Your task to perform on an android device: Go to Yahoo.com Image 0: 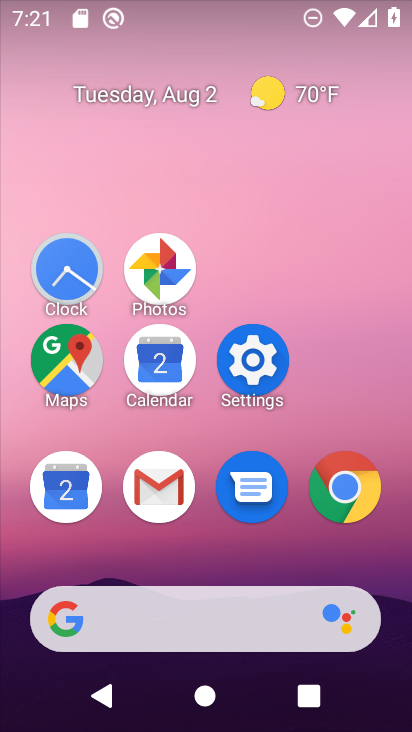
Step 0: click (348, 486)
Your task to perform on an android device: Go to Yahoo.com Image 1: 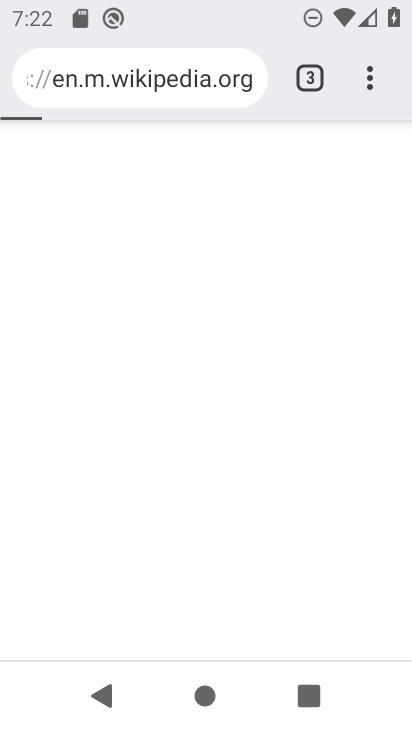
Step 1: click (334, 167)
Your task to perform on an android device: Go to Yahoo.com Image 2: 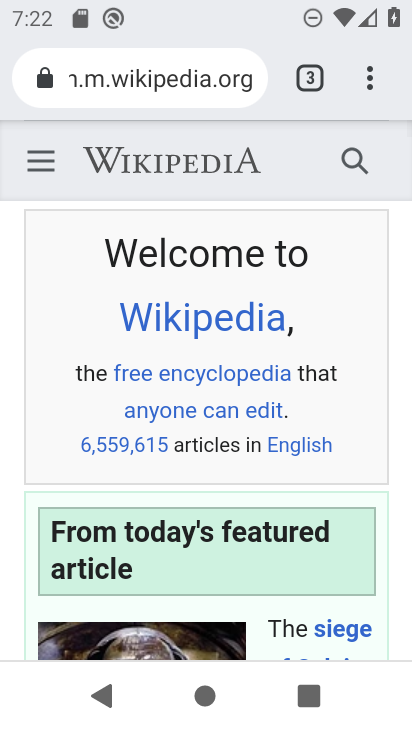
Step 2: click (371, 69)
Your task to perform on an android device: Go to Yahoo.com Image 3: 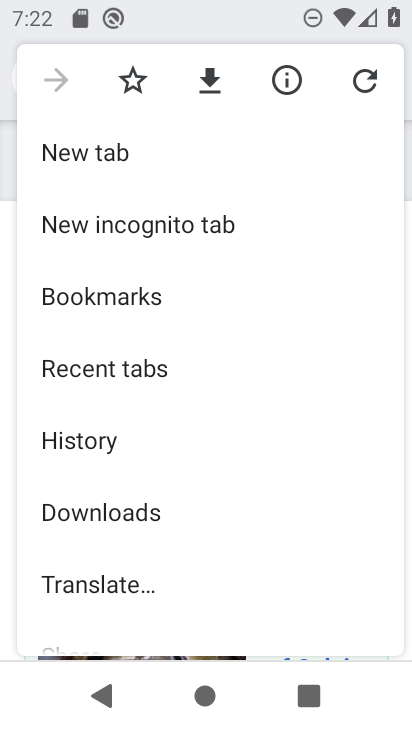
Step 3: click (99, 138)
Your task to perform on an android device: Go to Yahoo.com Image 4: 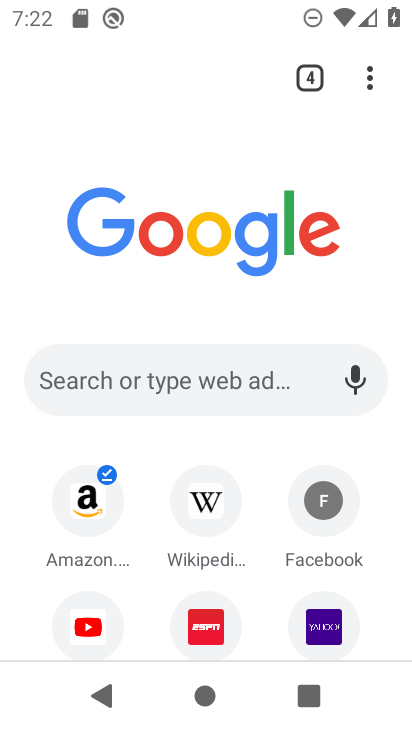
Step 4: click (311, 626)
Your task to perform on an android device: Go to Yahoo.com Image 5: 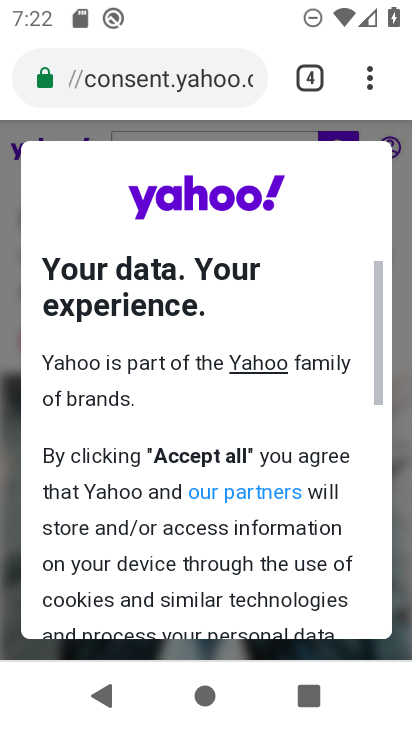
Step 5: drag from (304, 515) to (274, 213)
Your task to perform on an android device: Go to Yahoo.com Image 6: 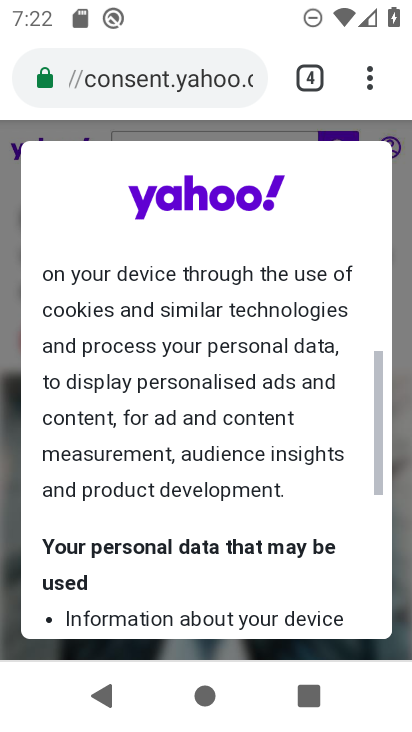
Step 6: drag from (288, 534) to (253, 205)
Your task to perform on an android device: Go to Yahoo.com Image 7: 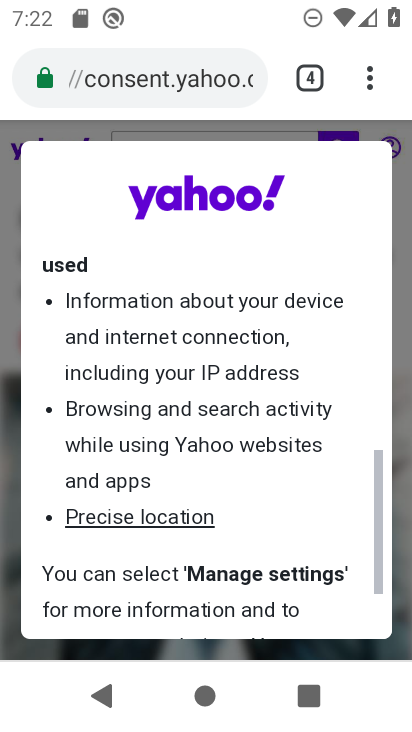
Step 7: drag from (263, 524) to (218, 76)
Your task to perform on an android device: Go to Yahoo.com Image 8: 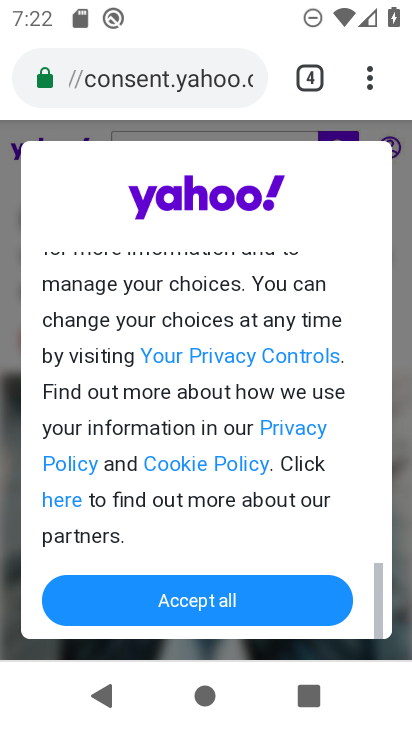
Step 8: click (157, 611)
Your task to perform on an android device: Go to Yahoo.com Image 9: 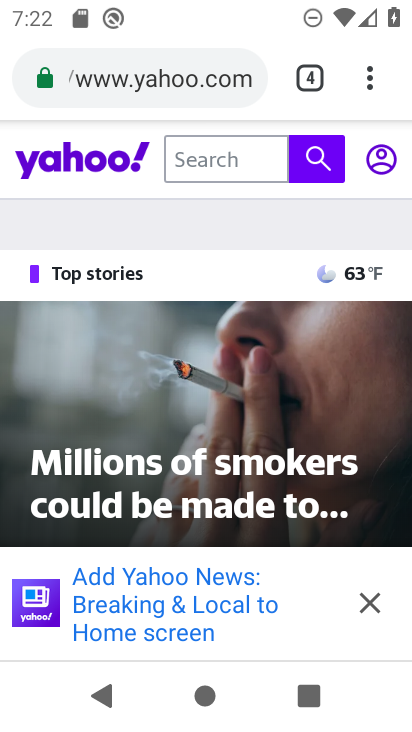
Step 9: task complete